Your task to perform on an android device: open the mobile data screen to see how much data has been used Image 0: 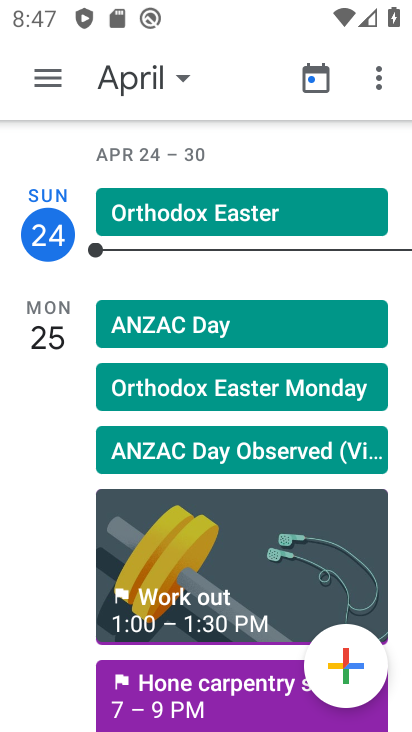
Step 0: press home button
Your task to perform on an android device: open the mobile data screen to see how much data has been used Image 1: 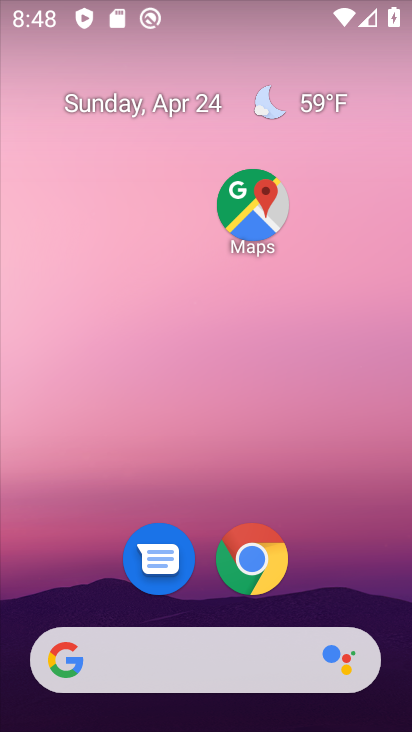
Step 1: drag from (69, 412) to (143, 241)
Your task to perform on an android device: open the mobile data screen to see how much data has been used Image 2: 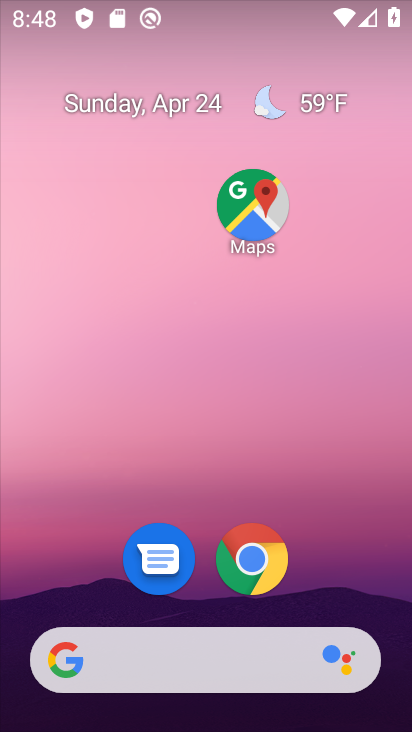
Step 2: drag from (16, 647) to (226, 156)
Your task to perform on an android device: open the mobile data screen to see how much data has been used Image 3: 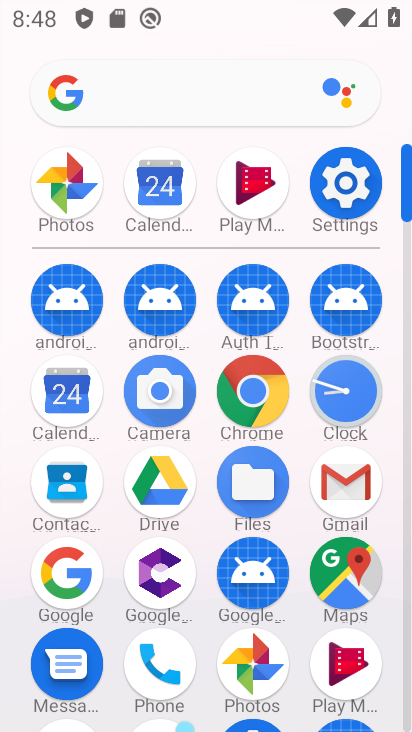
Step 3: click (367, 168)
Your task to perform on an android device: open the mobile data screen to see how much data has been used Image 4: 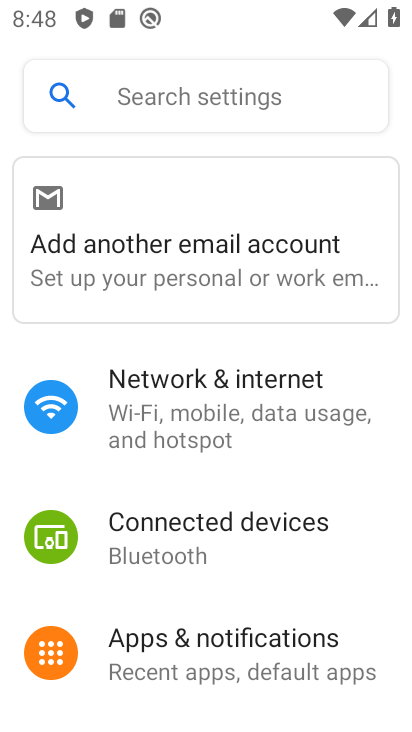
Step 4: click (245, 408)
Your task to perform on an android device: open the mobile data screen to see how much data has been used Image 5: 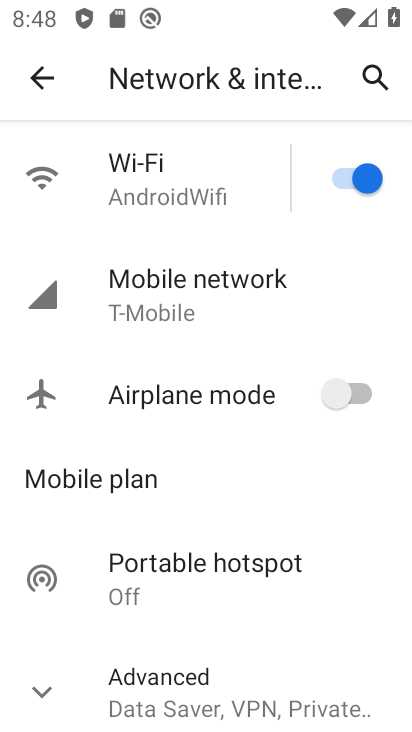
Step 5: click (252, 290)
Your task to perform on an android device: open the mobile data screen to see how much data has been used Image 6: 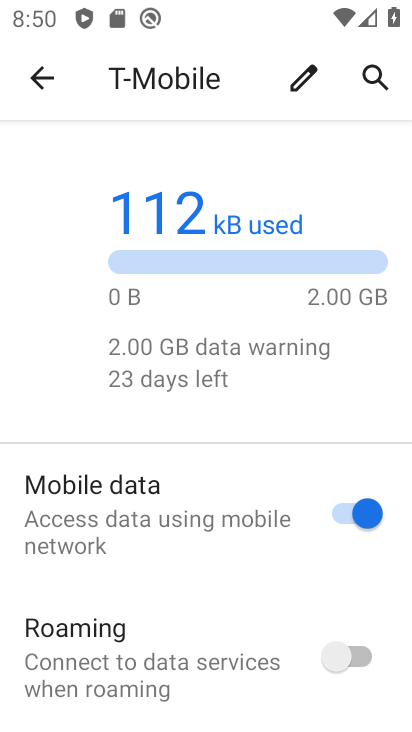
Step 6: task complete